Your task to perform on an android device: Open calendar and show me the fourth week of next month Image 0: 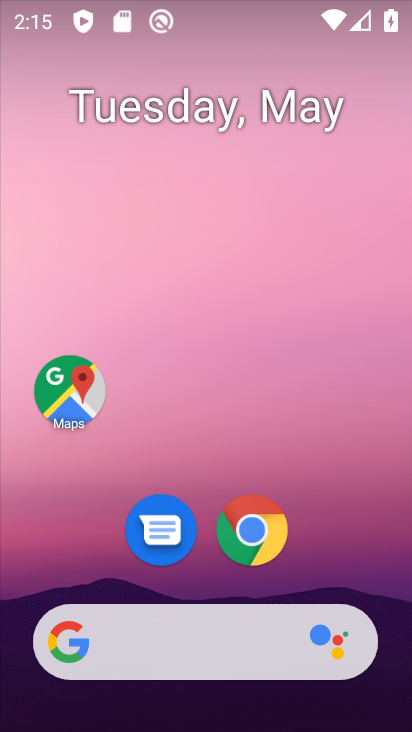
Step 0: drag from (4, 648) to (213, 151)
Your task to perform on an android device: Open calendar and show me the fourth week of next month Image 1: 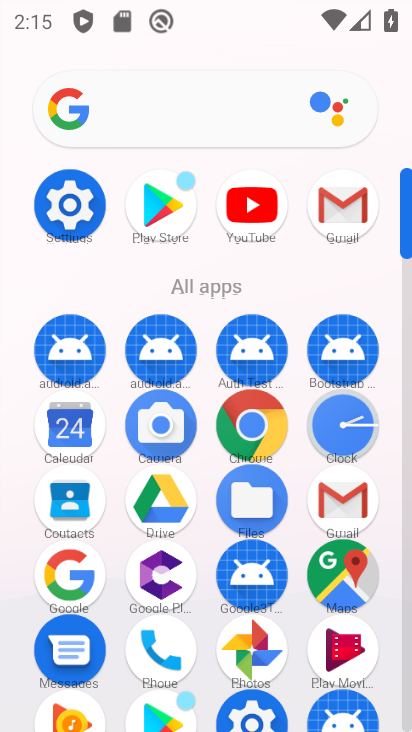
Step 1: click (54, 433)
Your task to perform on an android device: Open calendar and show me the fourth week of next month Image 2: 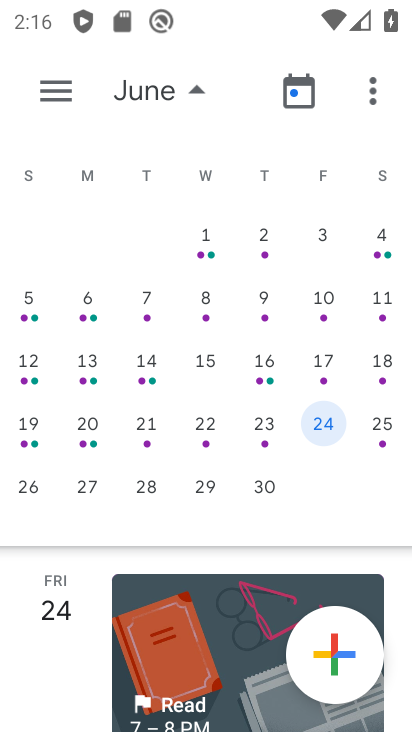
Step 2: click (82, 420)
Your task to perform on an android device: Open calendar and show me the fourth week of next month Image 3: 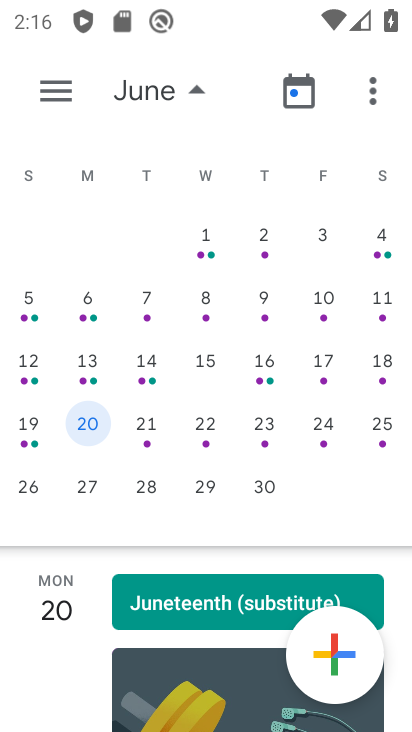
Step 3: click (153, 428)
Your task to perform on an android device: Open calendar and show me the fourth week of next month Image 4: 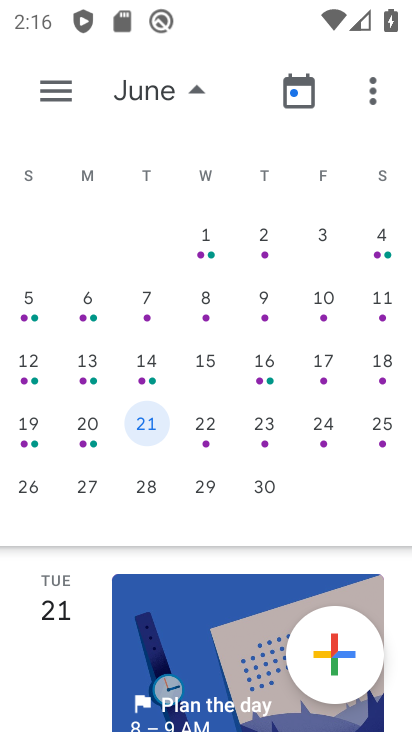
Step 4: click (199, 431)
Your task to perform on an android device: Open calendar and show me the fourth week of next month Image 5: 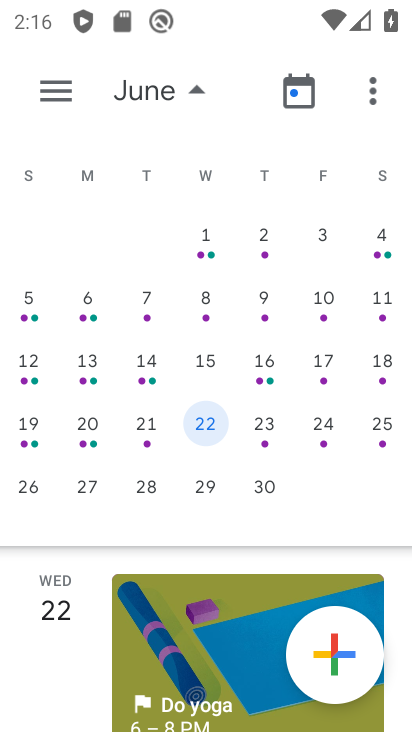
Step 5: click (262, 431)
Your task to perform on an android device: Open calendar and show me the fourth week of next month Image 6: 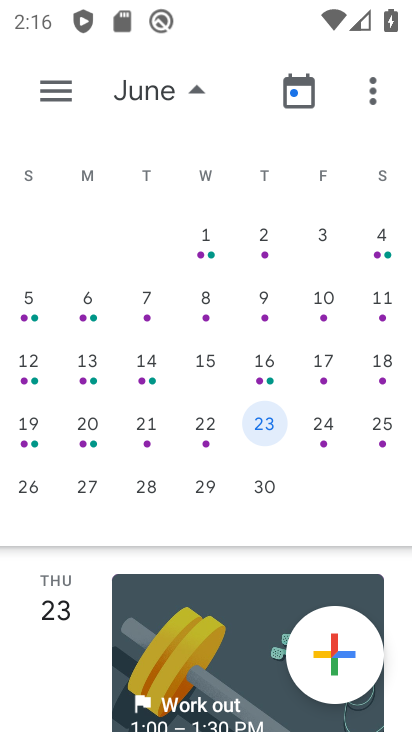
Step 6: click (317, 420)
Your task to perform on an android device: Open calendar and show me the fourth week of next month Image 7: 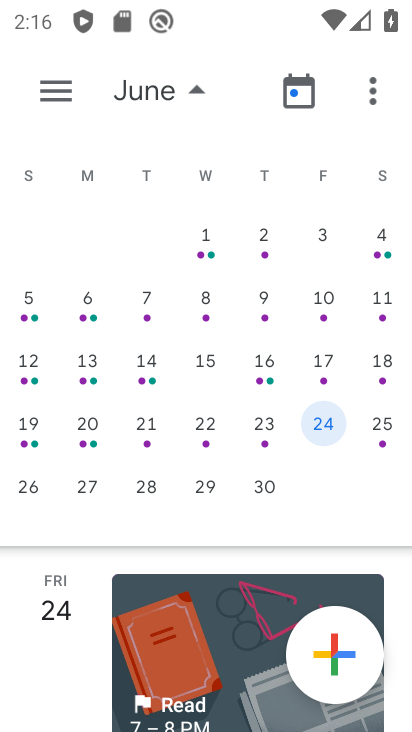
Step 7: task complete